Your task to perform on an android device: Go to Yahoo.com Image 0: 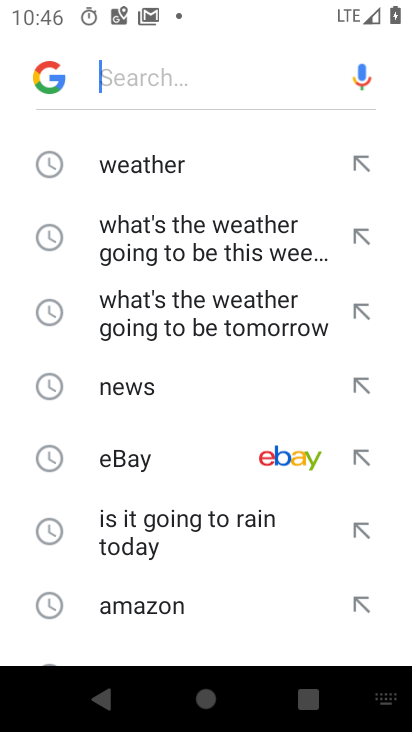
Step 0: press home button
Your task to perform on an android device: Go to Yahoo.com Image 1: 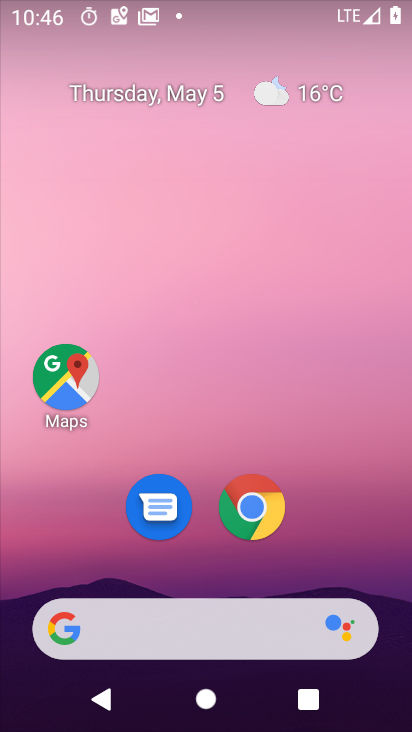
Step 1: click (245, 505)
Your task to perform on an android device: Go to Yahoo.com Image 2: 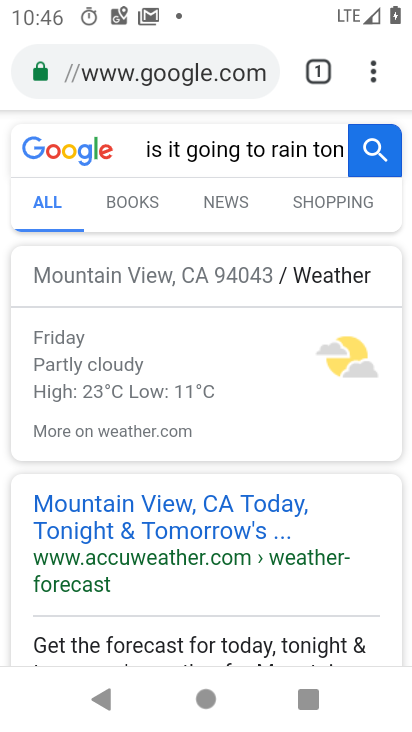
Step 2: click (219, 149)
Your task to perform on an android device: Go to Yahoo.com Image 3: 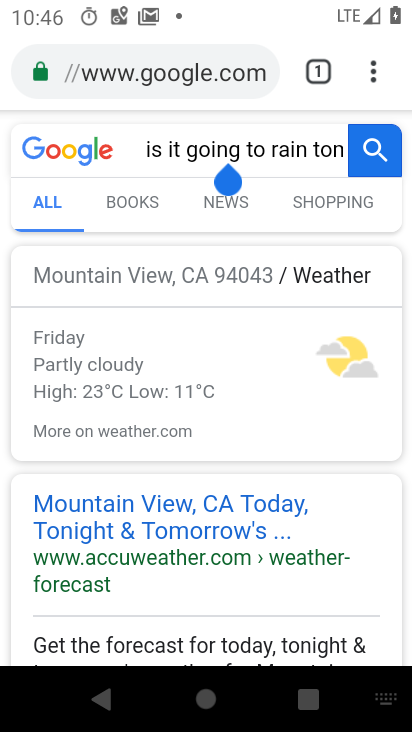
Step 3: click (232, 73)
Your task to perform on an android device: Go to Yahoo.com Image 4: 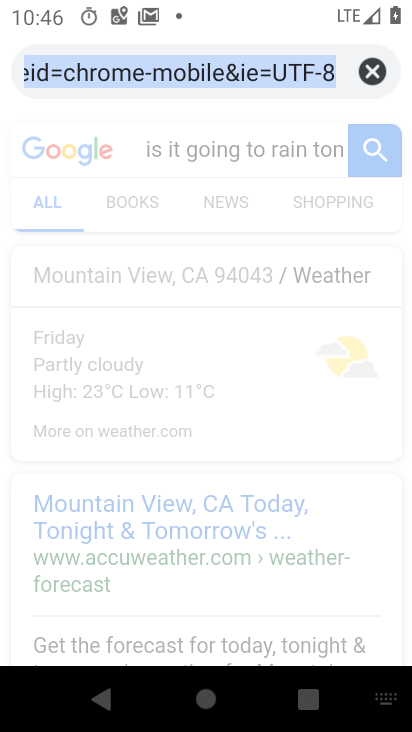
Step 4: type "Yahoo.com"
Your task to perform on an android device: Go to Yahoo.com Image 5: 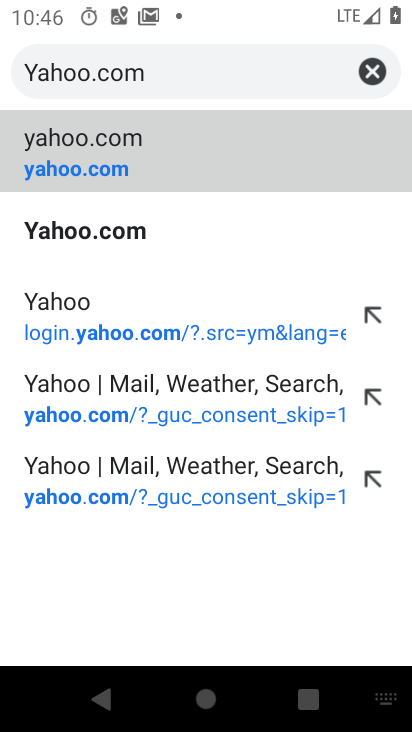
Step 5: click (99, 165)
Your task to perform on an android device: Go to Yahoo.com Image 6: 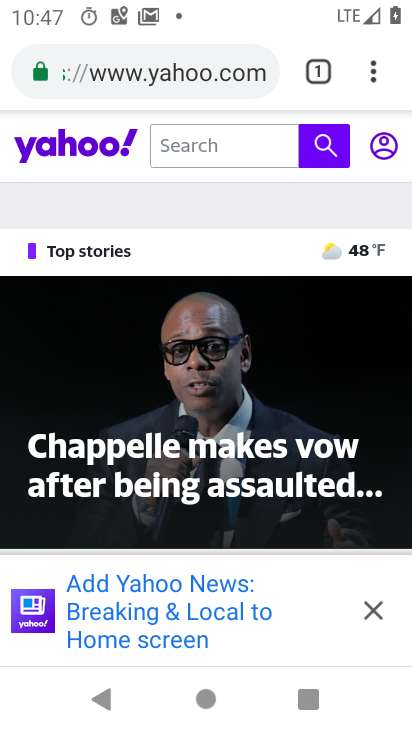
Step 6: task complete